Your task to perform on an android device: check battery use Image 0: 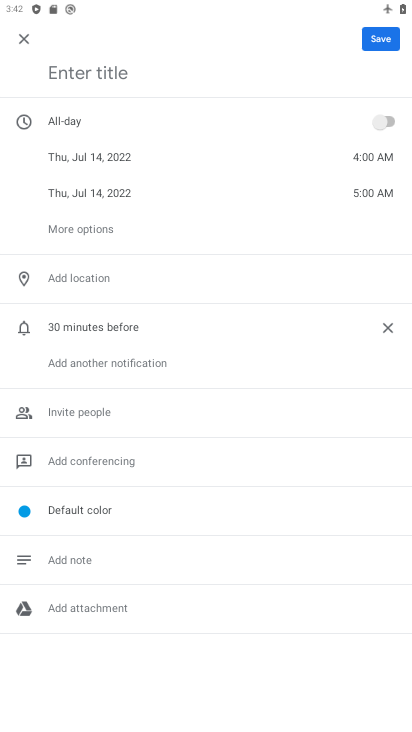
Step 0: press home button
Your task to perform on an android device: check battery use Image 1: 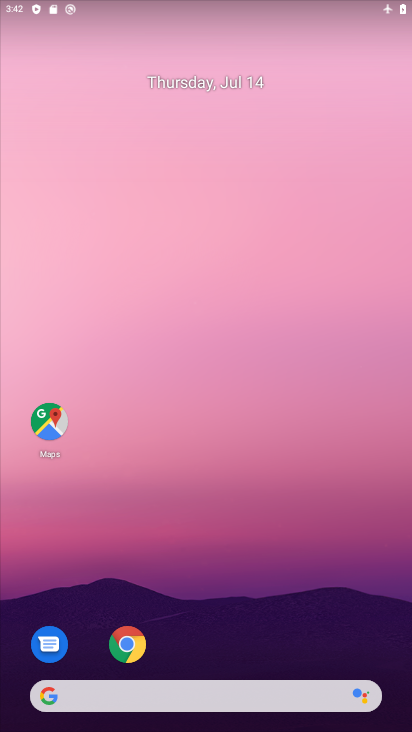
Step 1: drag from (359, 648) to (181, 1)
Your task to perform on an android device: check battery use Image 2: 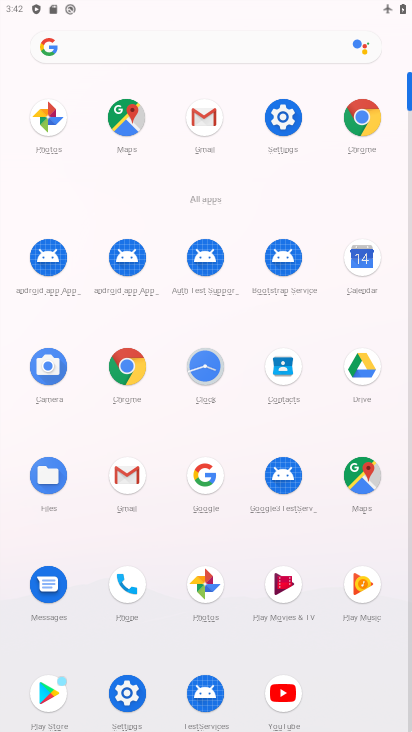
Step 2: click (295, 121)
Your task to perform on an android device: check battery use Image 3: 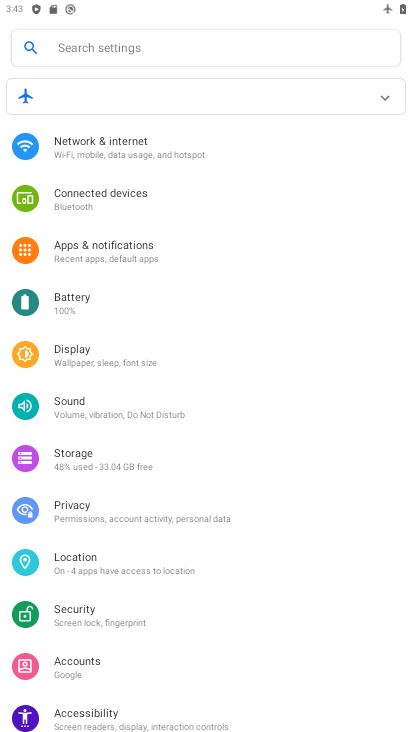
Step 3: click (67, 304)
Your task to perform on an android device: check battery use Image 4: 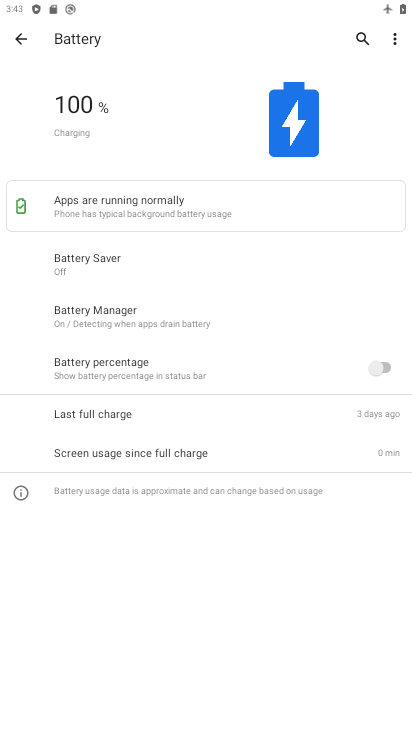
Step 4: task complete